Your task to perform on an android device: turn on translation in the chrome app Image 0: 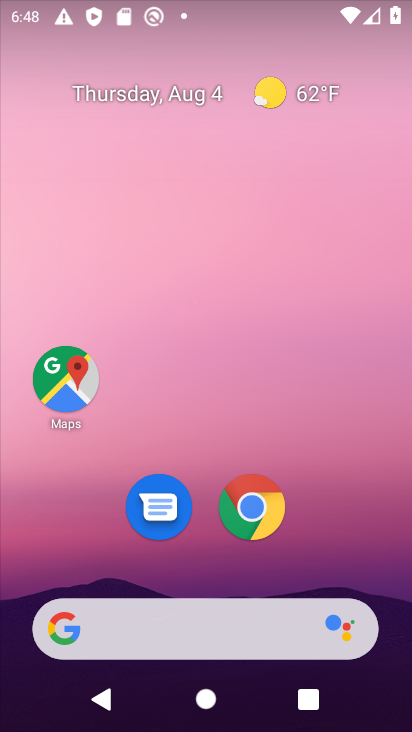
Step 0: drag from (380, 588) to (308, 3)
Your task to perform on an android device: turn on translation in the chrome app Image 1: 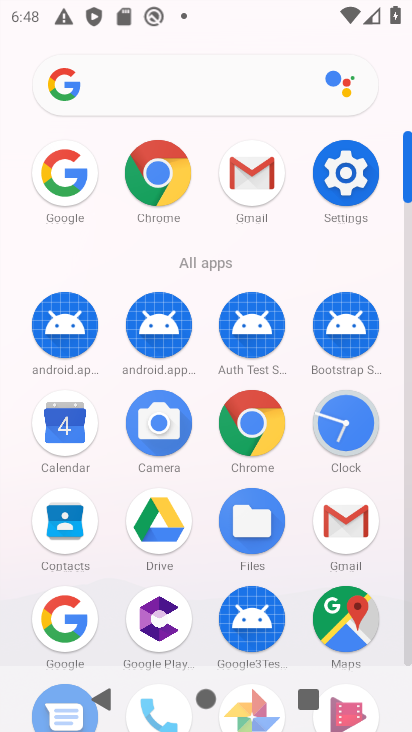
Step 1: click (274, 425)
Your task to perform on an android device: turn on translation in the chrome app Image 2: 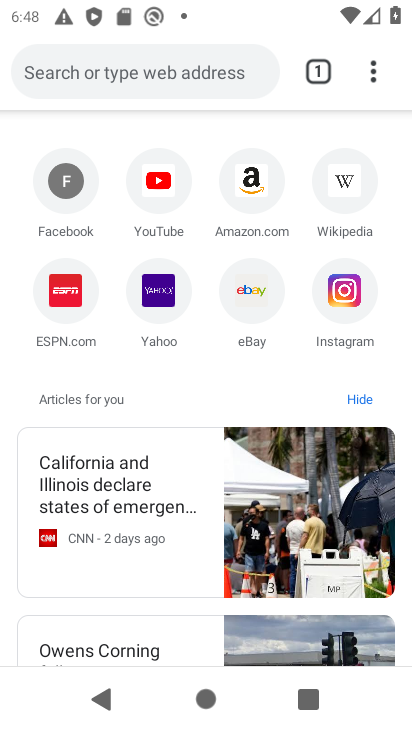
Step 2: click (378, 68)
Your task to perform on an android device: turn on translation in the chrome app Image 3: 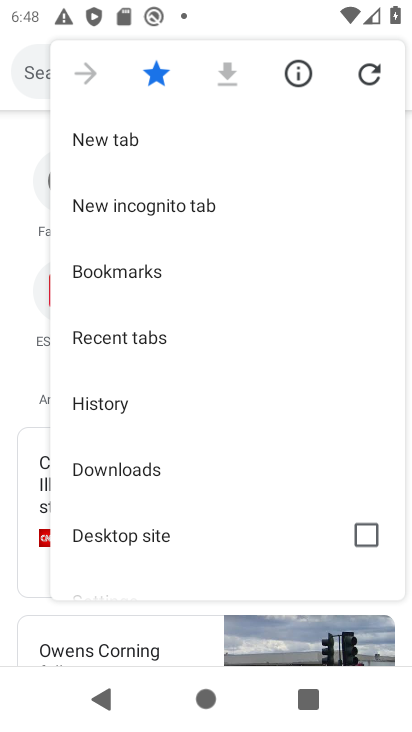
Step 3: drag from (149, 540) to (221, 47)
Your task to perform on an android device: turn on translation in the chrome app Image 4: 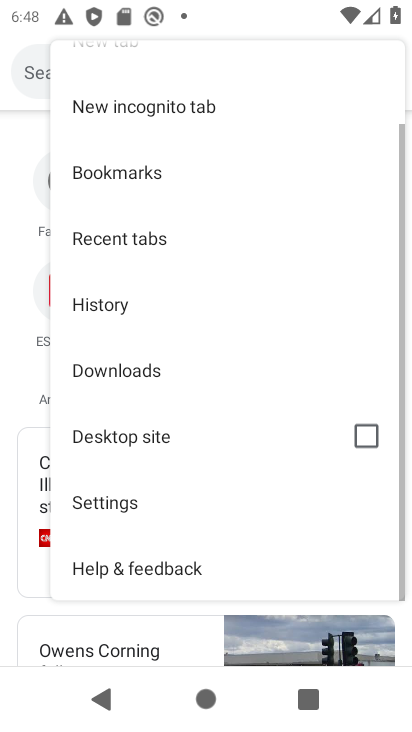
Step 4: click (131, 511)
Your task to perform on an android device: turn on translation in the chrome app Image 5: 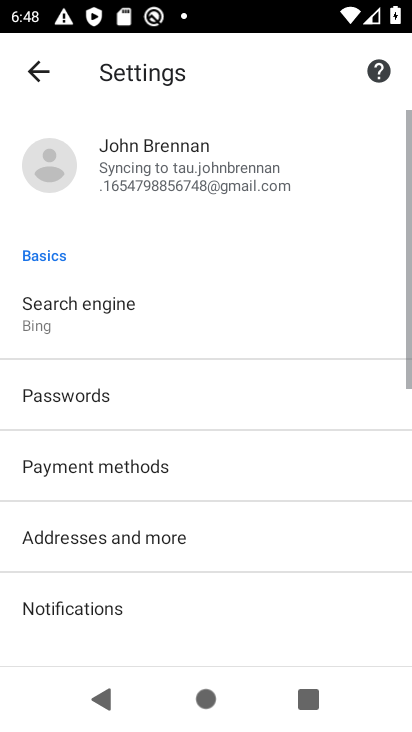
Step 5: drag from (145, 618) to (190, 38)
Your task to perform on an android device: turn on translation in the chrome app Image 6: 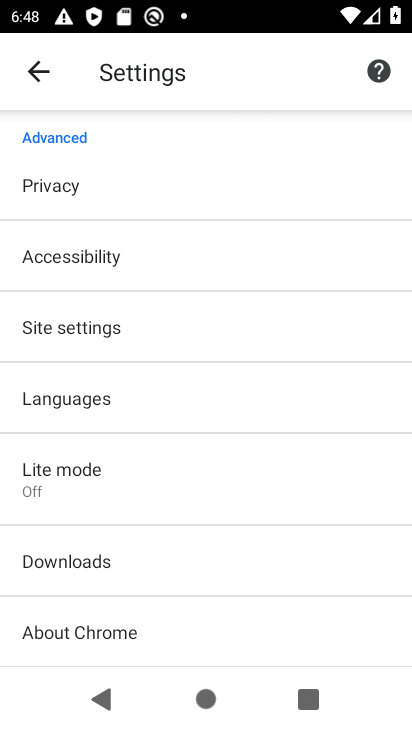
Step 6: click (108, 379)
Your task to perform on an android device: turn on translation in the chrome app Image 7: 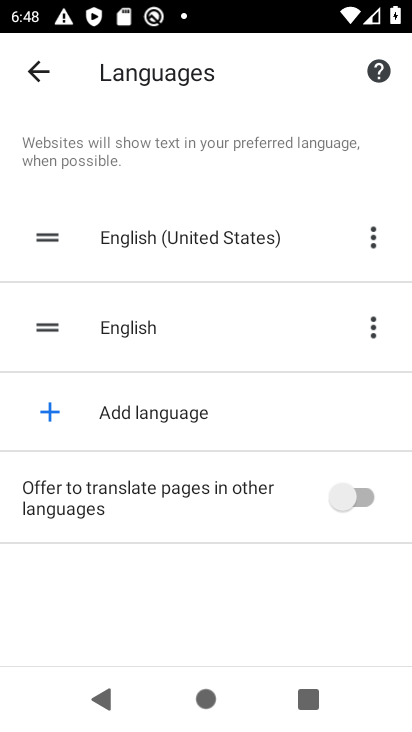
Step 7: click (361, 500)
Your task to perform on an android device: turn on translation in the chrome app Image 8: 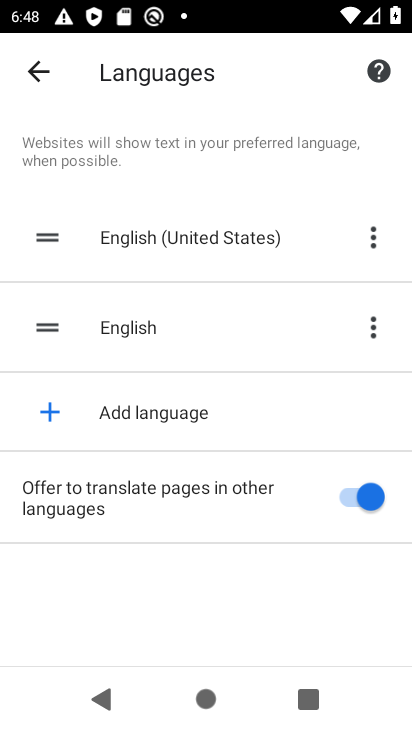
Step 8: task complete